Your task to perform on an android device: turn notification dots on Image 0: 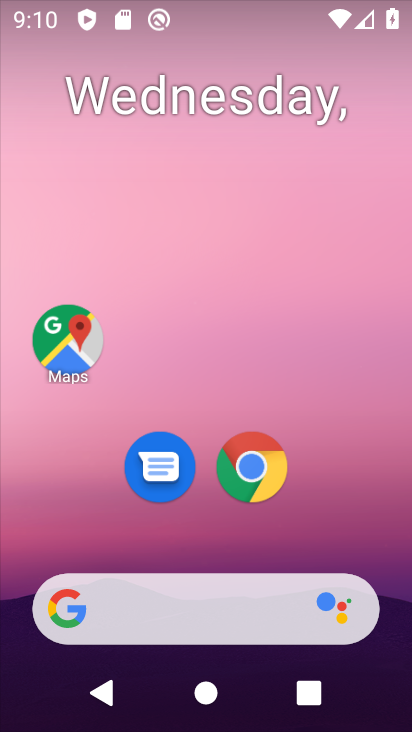
Step 0: drag from (408, 604) to (357, 192)
Your task to perform on an android device: turn notification dots on Image 1: 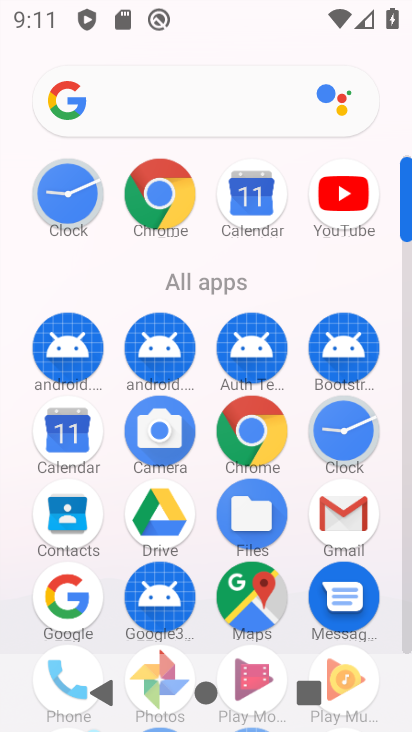
Step 1: drag from (303, 535) to (275, 163)
Your task to perform on an android device: turn notification dots on Image 2: 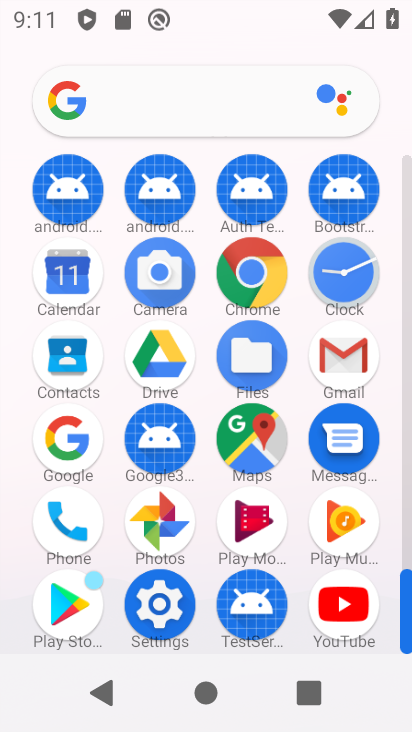
Step 2: drag from (311, 412) to (317, 10)
Your task to perform on an android device: turn notification dots on Image 3: 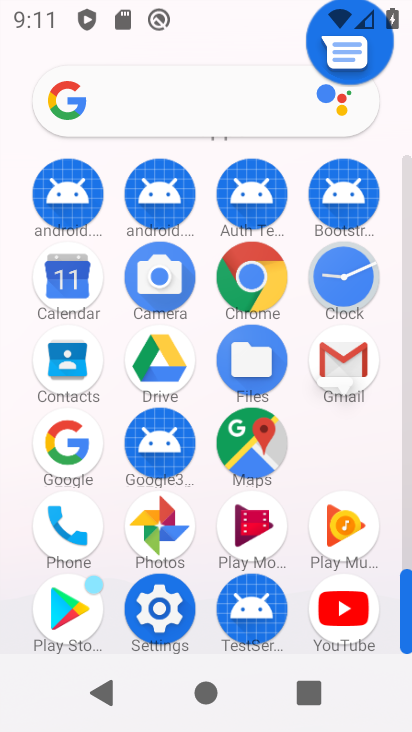
Step 3: drag from (291, 442) to (266, 33)
Your task to perform on an android device: turn notification dots on Image 4: 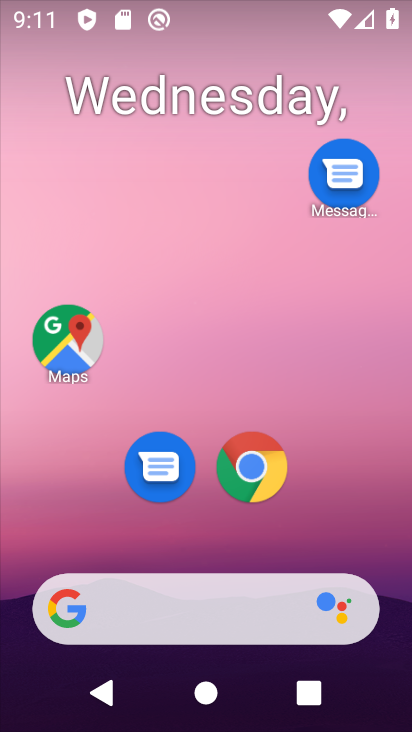
Step 4: click (161, 600)
Your task to perform on an android device: turn notification dots on Image 5: 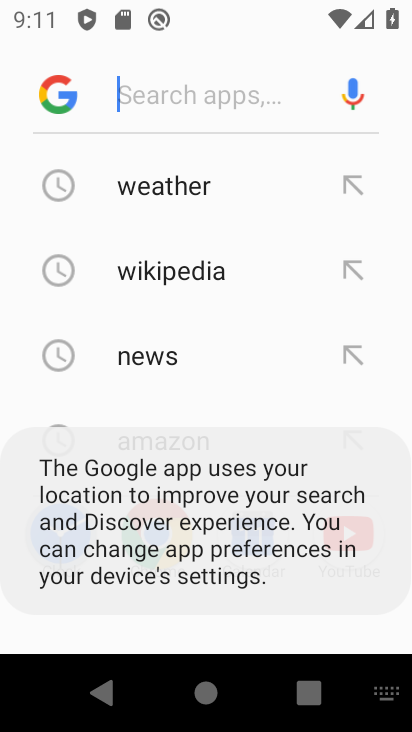
Step 5: press back button
Your task to perform on an android device: turn notification dots on Image 6: 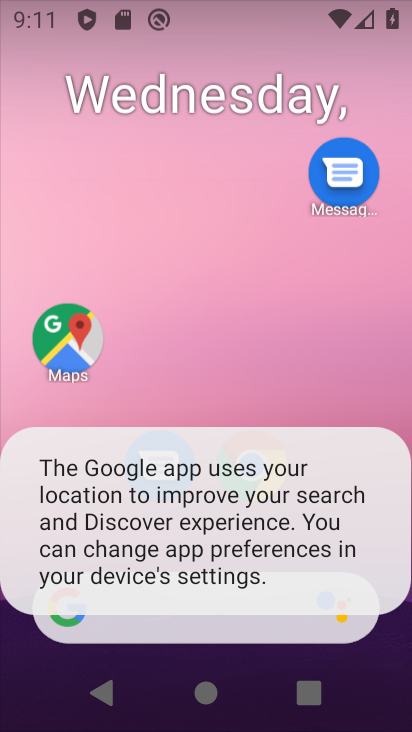
Step 6: press back button
Your task to perform on an android device: turn notification dots on Image 7: 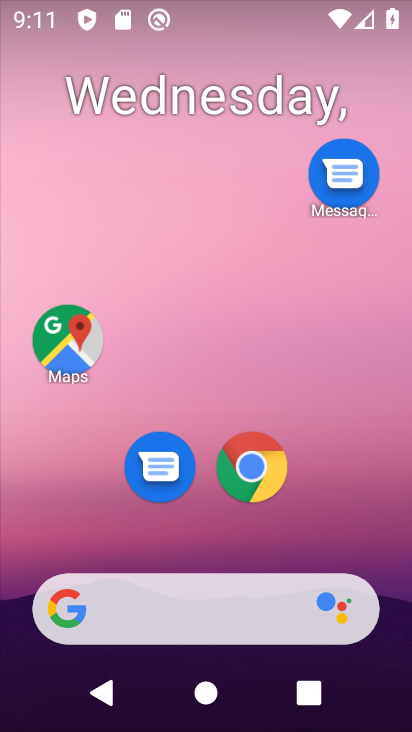
Step 7: drag from (111, 329) to (8, 122)
Your task to perform on an android device: turn notification dots on Image 8: 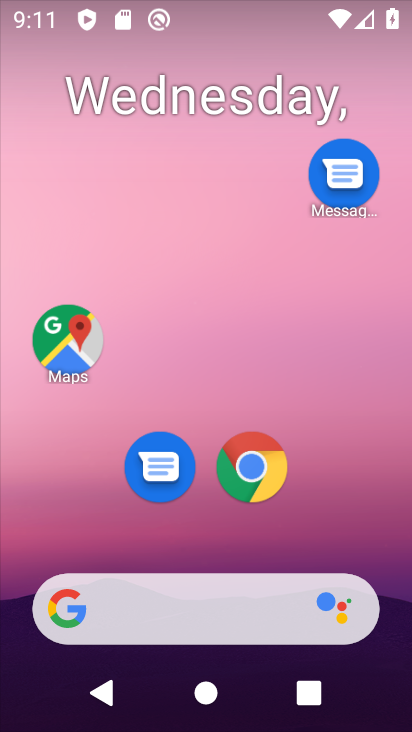
Step 8: drag from (368, 535) to (119, 6)
Your task to perform on an android device: turn notification dots on Image 9: 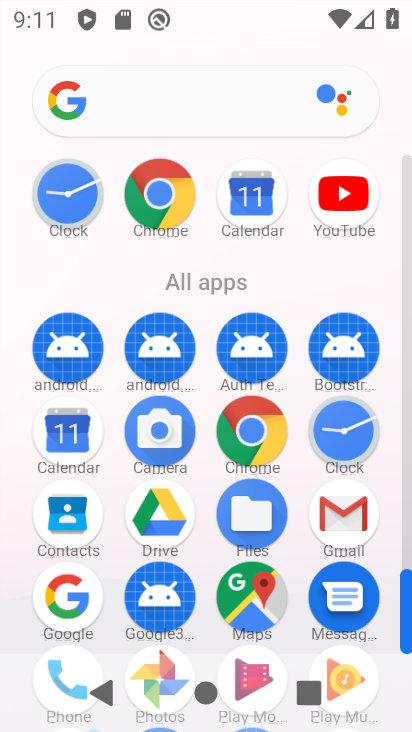
Step 9: drag from (329, 472) to (103, 14)
Your task to perform on an android device: turn notification dots on Image 10: 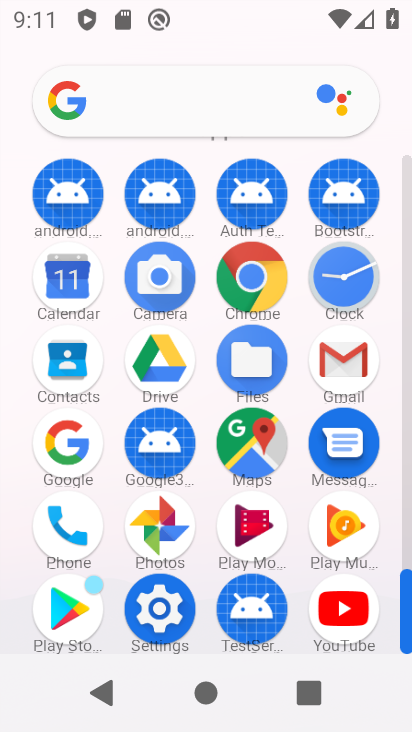
Step 10: click (165, 589)
Your task to perform on an android device: turn notification dots on Image 11: 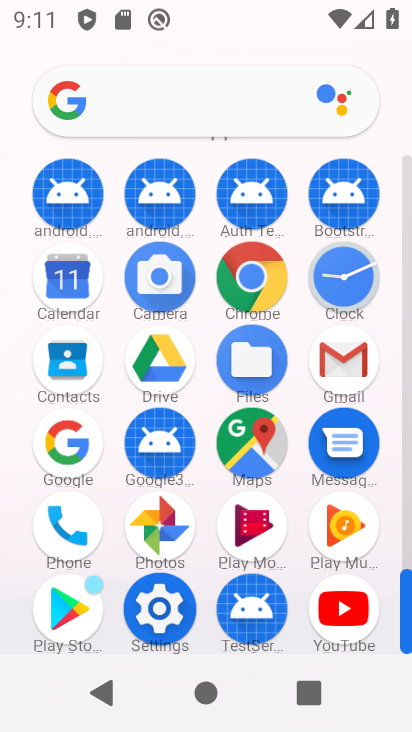
Step 11: click (165, 624)
Your task to perform on an android device: turn notification dots on Image 12: 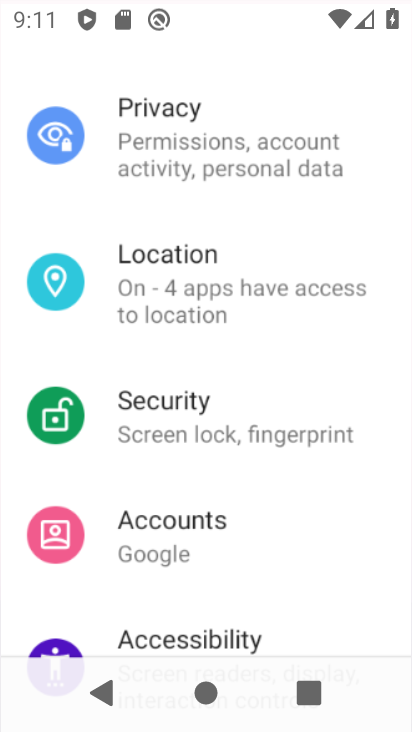
Step 12: click (165, 624)
Your task to perform on an android device: turn notification dots on Image 13: 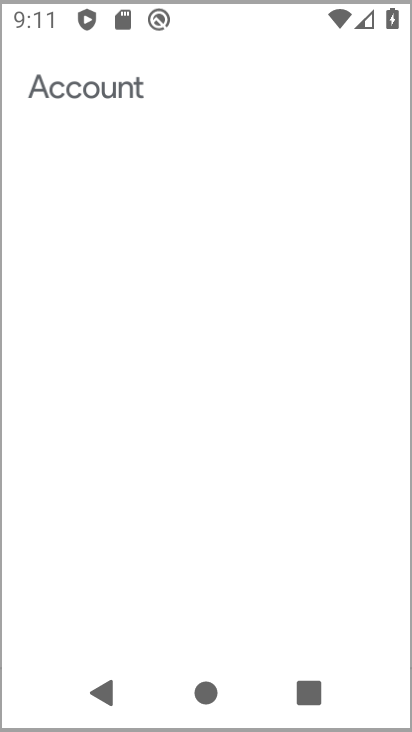
Step 13: drag from (221, 558) to (149, 5)
Your task to perform on an android device: turn notification dots on Image 14: 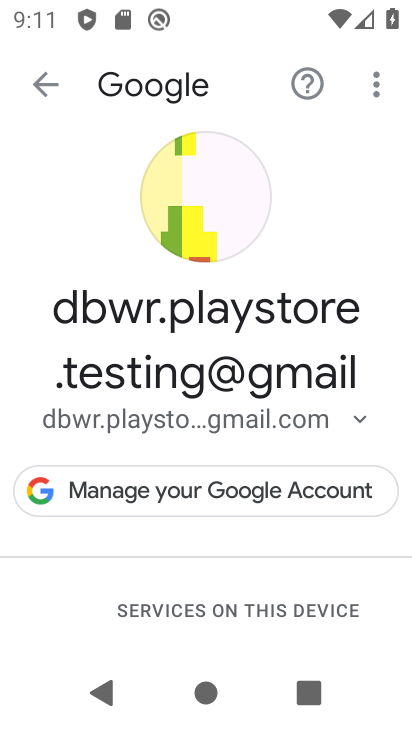
Step 14: press back button
Your task to perform on an android device: turn notification dots on Image 15: 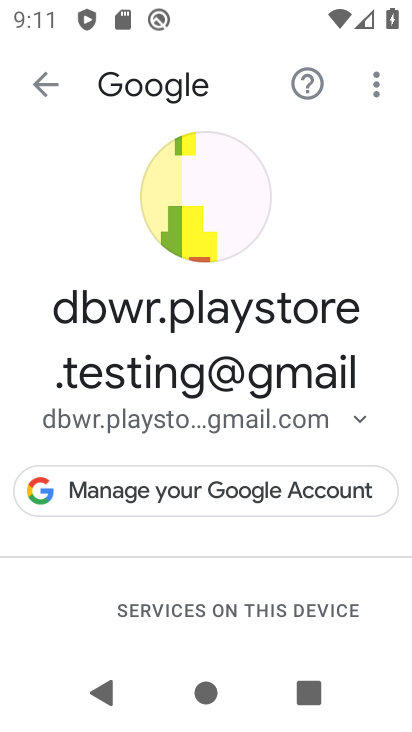
Step 15: press back button
Your task to perform on an android device: turn notification dots on Image 16: 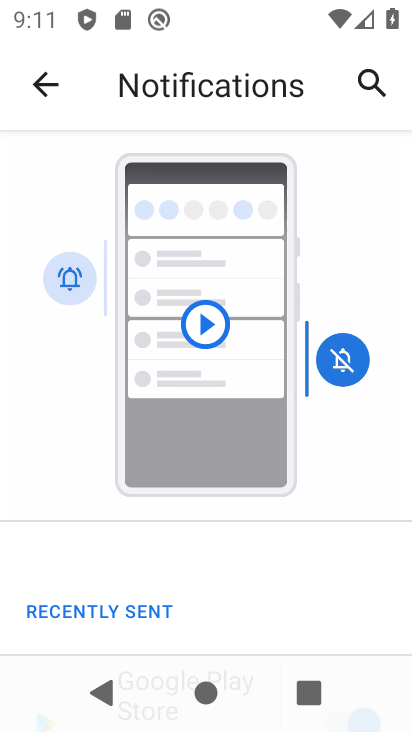
Step 16: drag from (206, 428) to (166, 40)
Your task to perform on an android device: turn notification dots on Image 17: 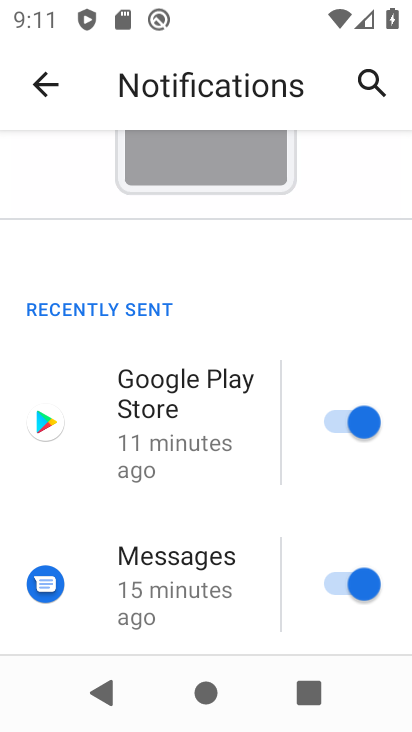
Step 17: click (156, 252)
Your task to perform on an android device: turn notification dots on Image 18: 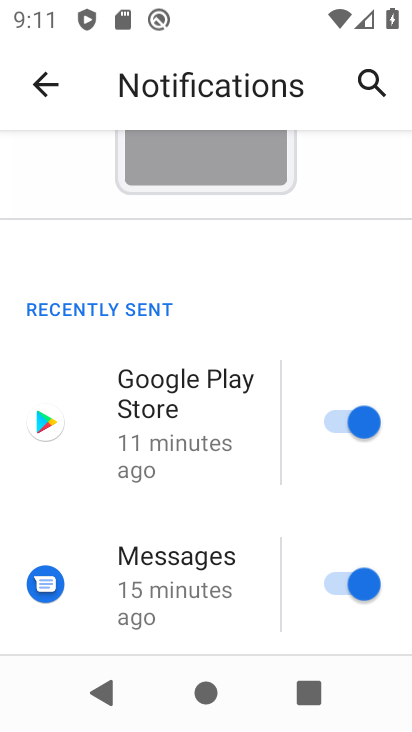
Step 18: drag from (168, 489) to (259, 174)
Your task to perform on an android device: turn notification dots on Image 19: 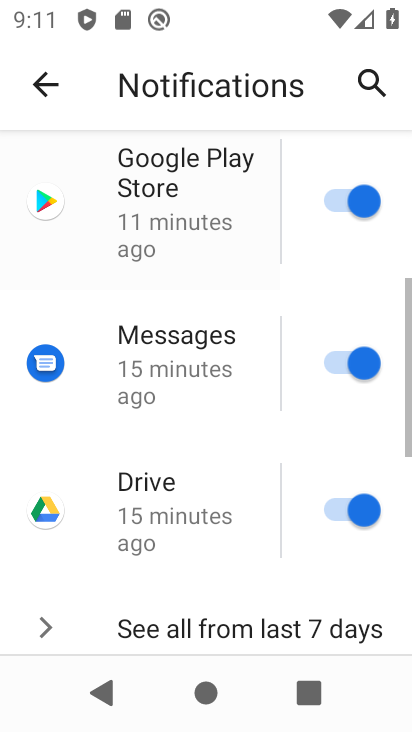
Step 19: drag from (162, 457) to (155, 235)
Your task to perform on an android device: turn notification dots on Image 20: 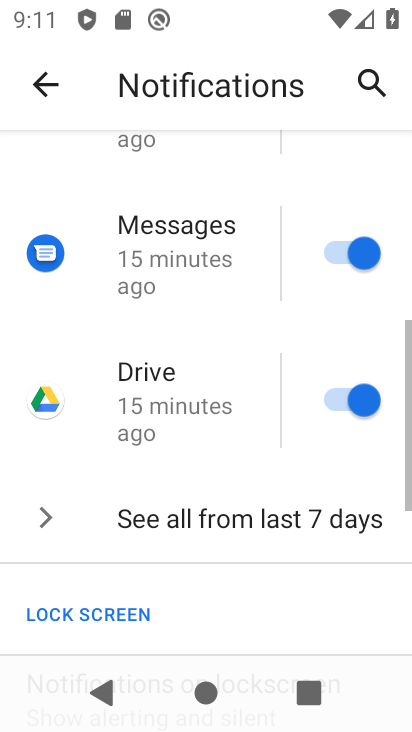
Step 20: drag from (142, 448) to (58, 210)
Your task to perform on an android device: turn notification dots on Image 21: 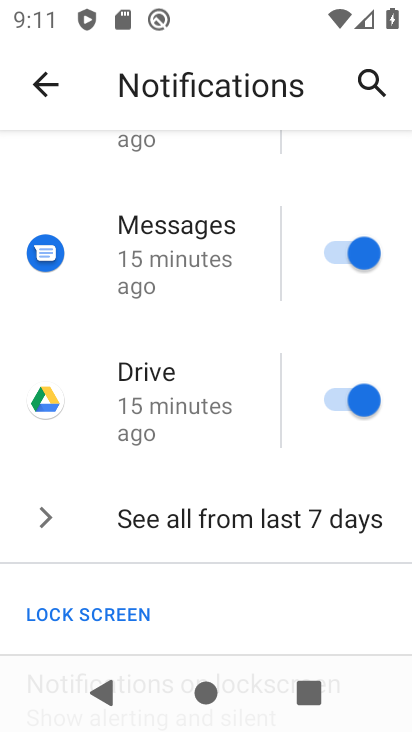
Step 21: drag from (133, 407) to (112, 175)
Your task to perform on an android device: turn notification dots on Image 22: 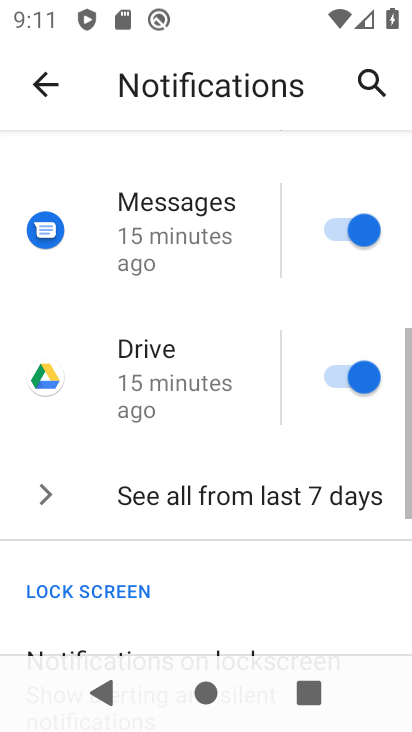
Step 22: drag from (128, 546) to (163, 212)
Your task to perform on an android device: turn notification dots on Image 23: 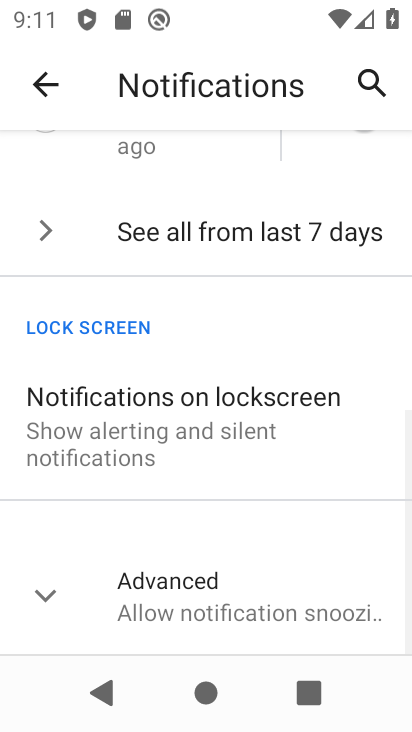
Step 23: drag from (193, 532) to (201, 149)
Your task to perform on an android device: turn notification dots on Image 24: 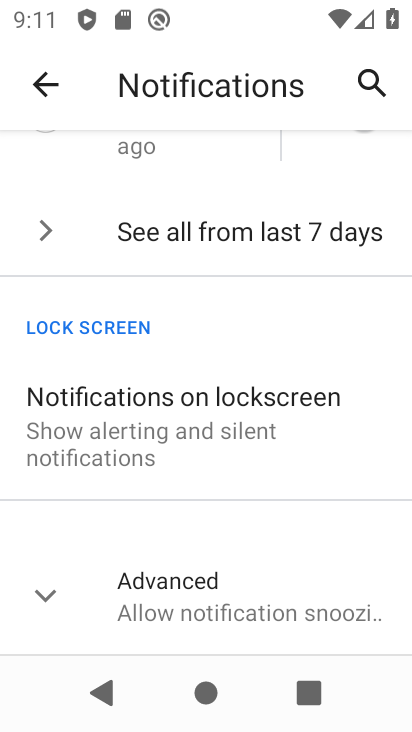
Step 24: click (199, 582)
Your task to perform on an android device: turn notification dots on Image 25: 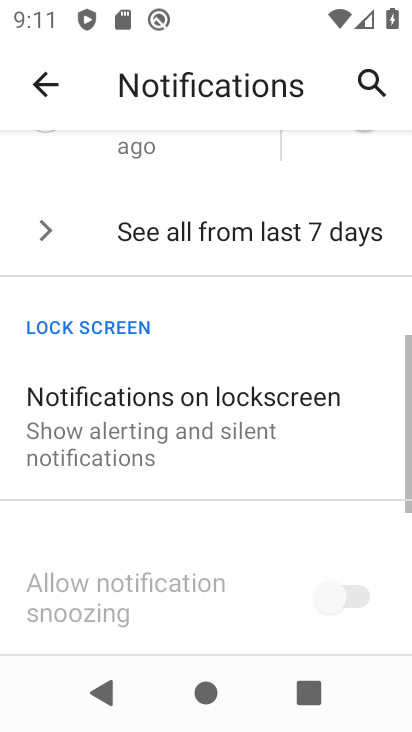
Step 25: click (199, 580)
Your task to perform on an android device: turn notification dots on Image 26: 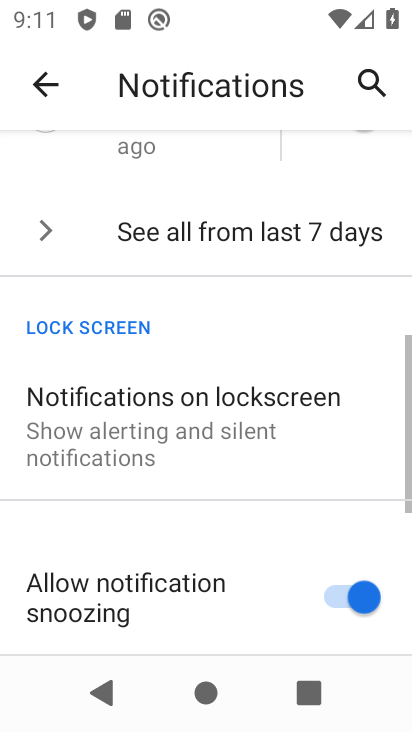
Step 26: click (166, 319)
Your task to perform on an android device: turn notification dots on Image 27: 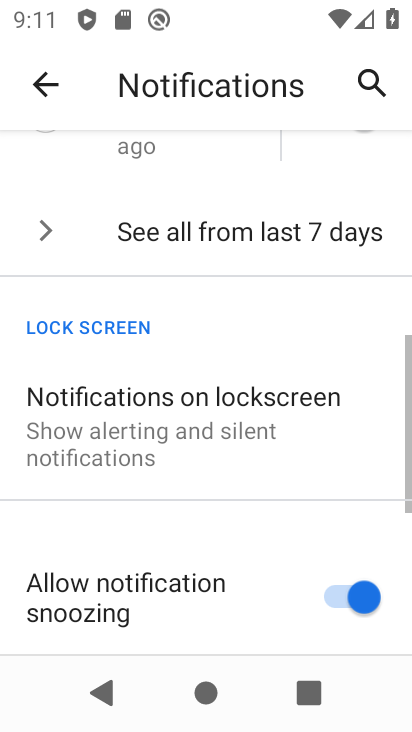
Step 27: drag from (266, 498) to (236, 124)
Your task to perform on an android device: turn notification dots on Image 28: 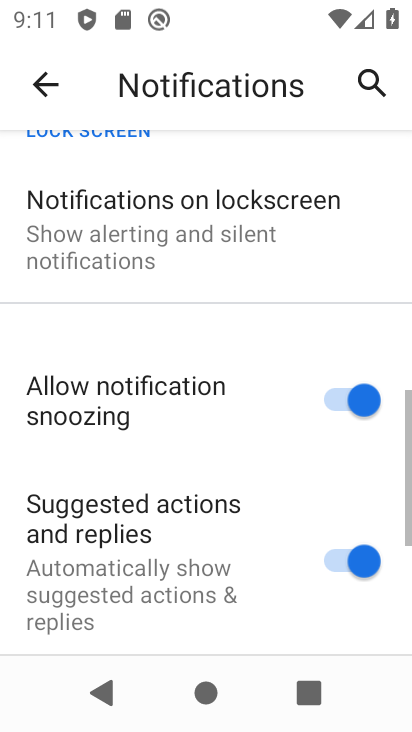
Step 28: drag from (267, 551) to (285, 159)
Your task to perform on an android device: turn notification dots on Image 29: 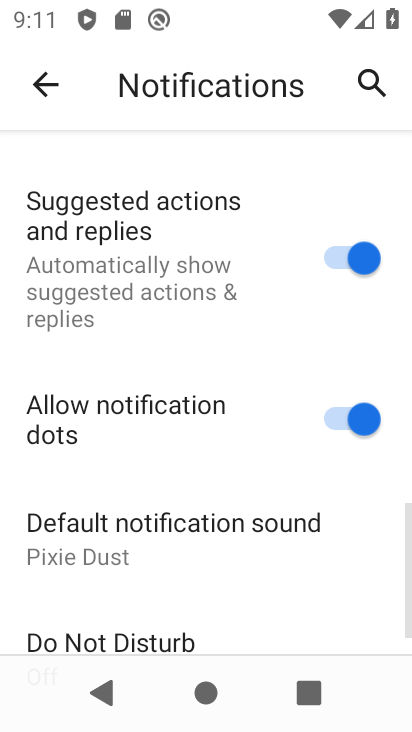
Step 29: click (372, 610)
Your task to perform on an android device: turn notification dots on Image 30: 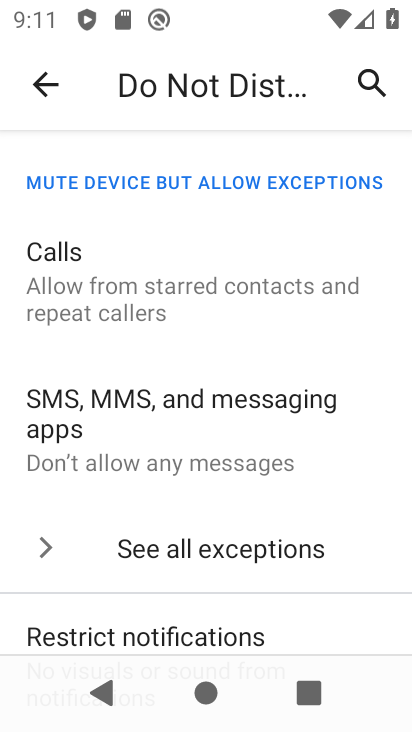
Step 30: click (39, 79)
Your task to perform on an android device: turn notification dots on Image 31: 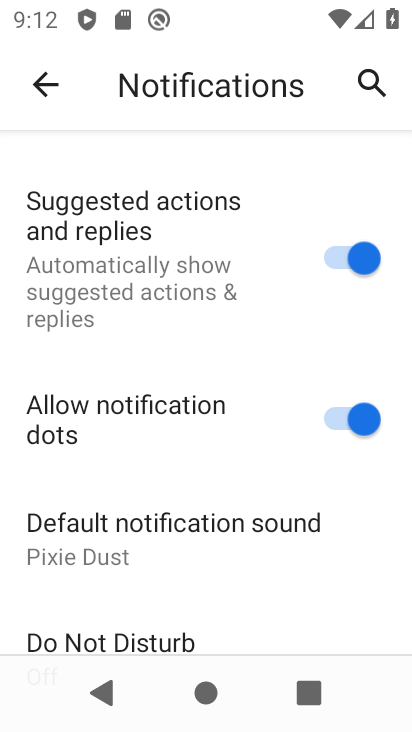
Step 31: click (393, 428)
Your task to perform on an android device: turn notification dots on Image 32: 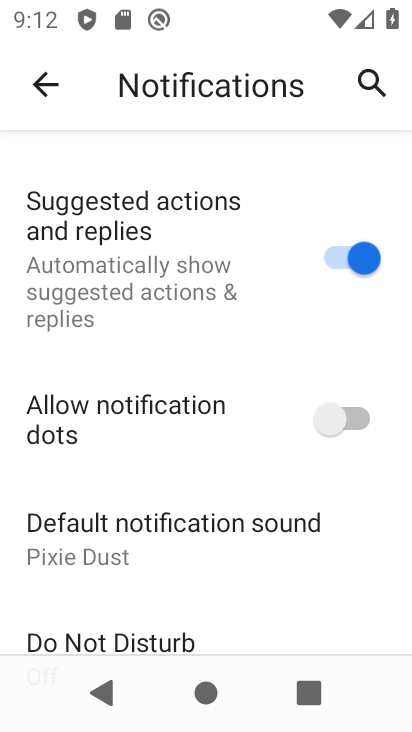
Step 32: task complete